Your task to perform on an android device: Go to Yahoo.com Image 0: 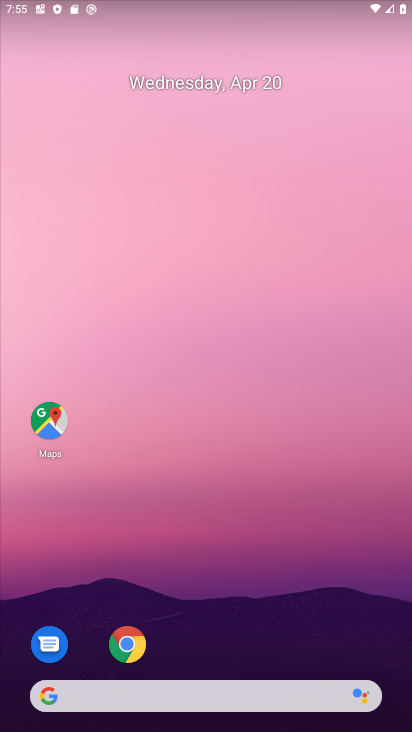
Step 0: drag from (355, 605) to (160, 88)
Your task to perform on an android device: Go to Yahoo.com Image 1: 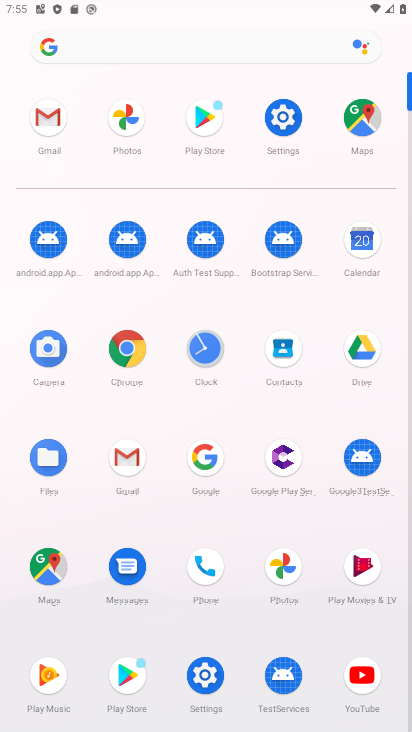
Step 1: click (128, 363)
Your task to perform on an android device: Go to Yahoo.com Image 2: 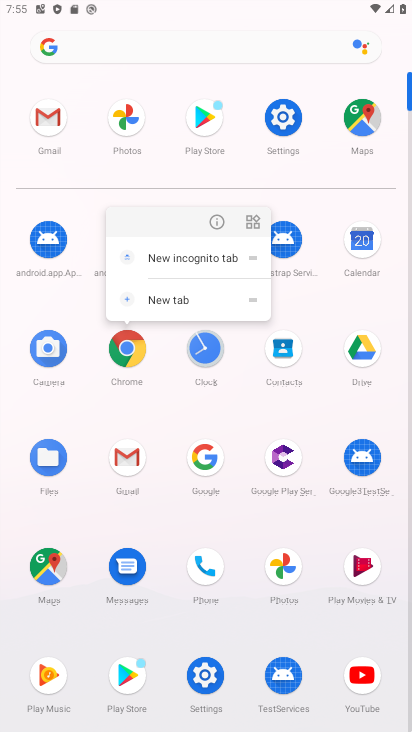
Step 2: click (128, 363)
Your task to perform on an android device: Go to Yahoo.com Image 3: 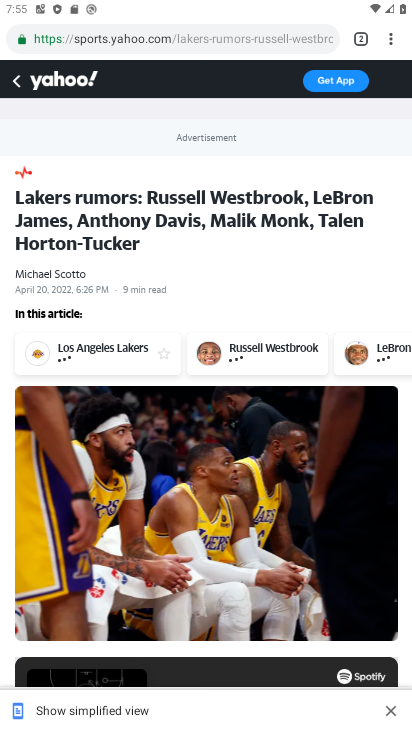
Step 3: press back button
Your task to perform on an android device: Go to Yahoo.com Image 4: 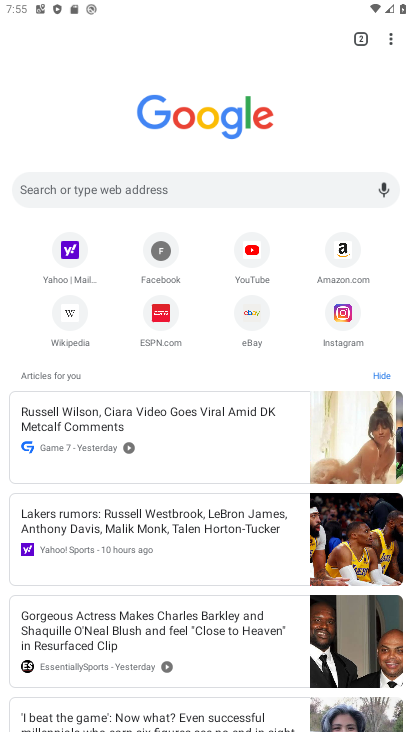
Step 4: click (73, 251)
Your task to perform on an android device: Go to Yahoo.com Image 5: 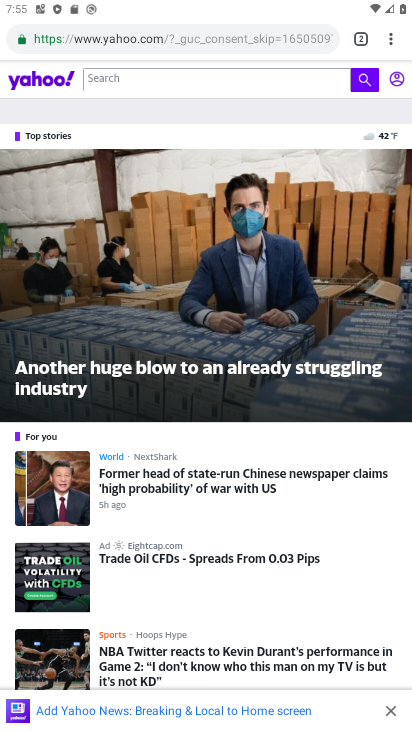
Step 5: task complete